Your task to perform on an android device: Open Google Chrome and open the bookmarks view Image 0: 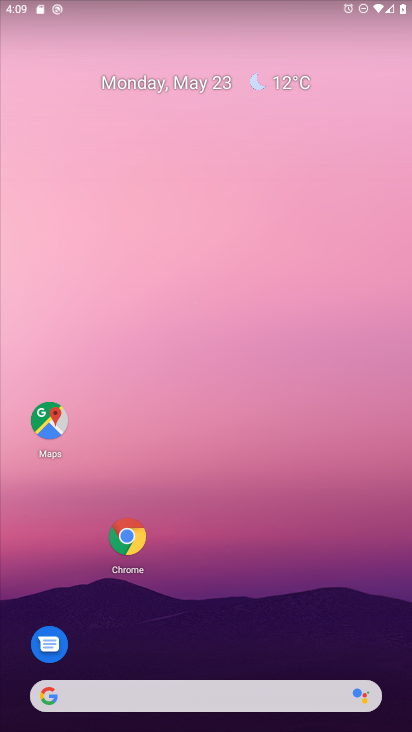
Step 0: click (124, 536)
Your task to perform on an android device: Open Google Chrome and open the bookmarks view Image 1: 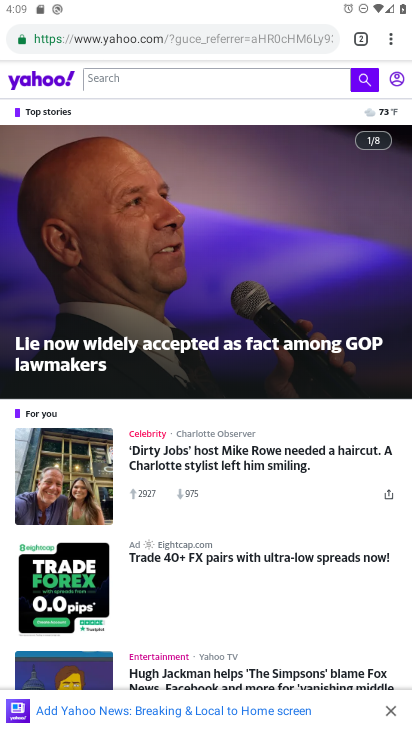
Step 1: click (392, 38)
Your task to perform on an android device: Open Google Chrome and open the bookmarks view Image 2: 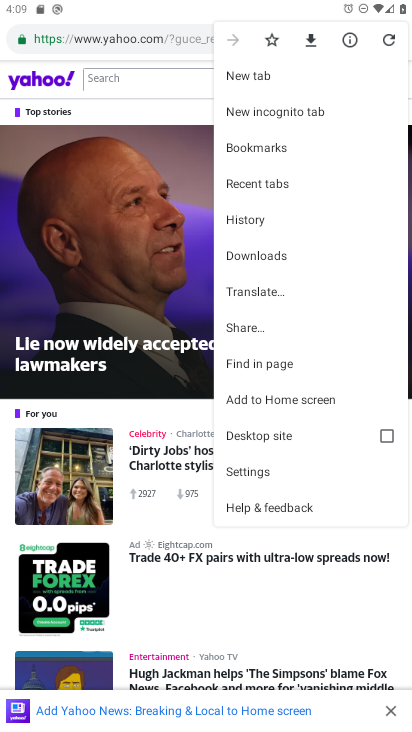
Step 2: click (289, 150)
Your task to perform on an android device: Open Google Chrome and open the bookmarks view Image 3: 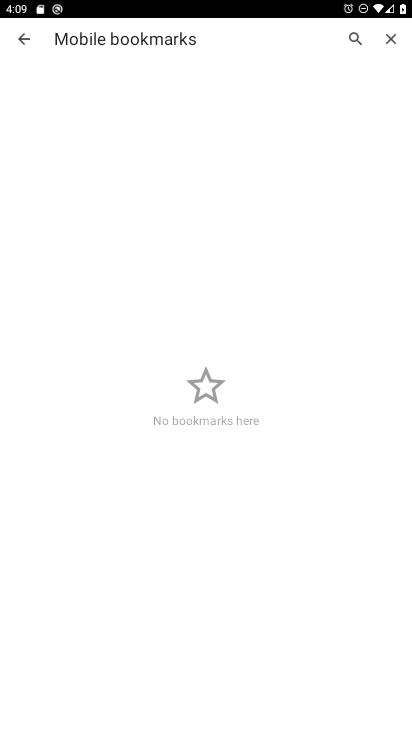
Step 3: task complete